Your task to perform on an android device: Open location settings Image 0: 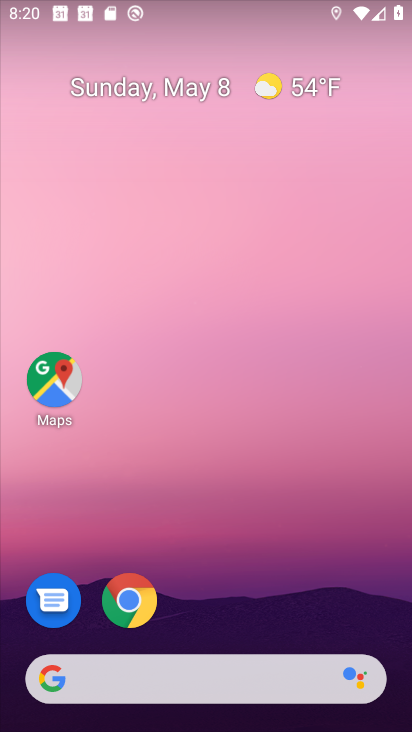
Step 0: drag from (306, 459) to (202, 70)
Your task to perform on an android device: Open location settings Image 1: 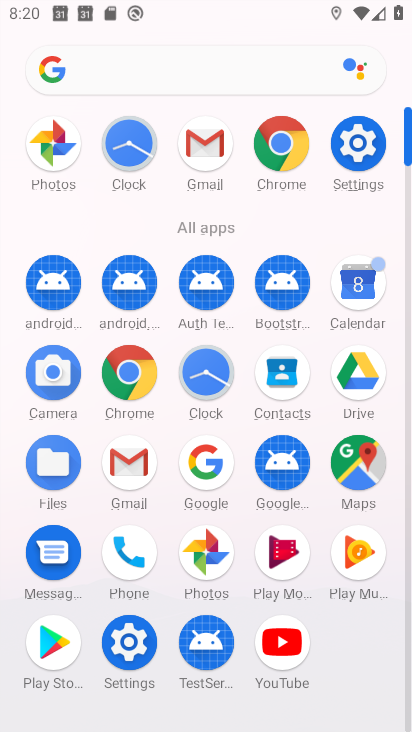
Step 1: click (374, 144)
Your task to perform on an android device: Open location settings Image 2: 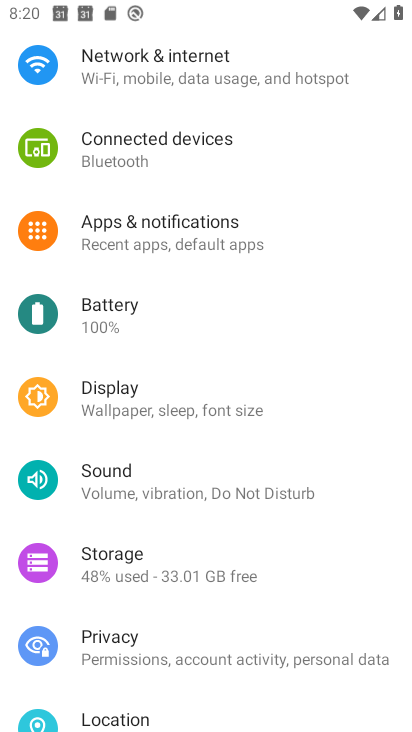
Step 2: click (153, 726)
Your task to perform on an android device: Open location settings Image 3: 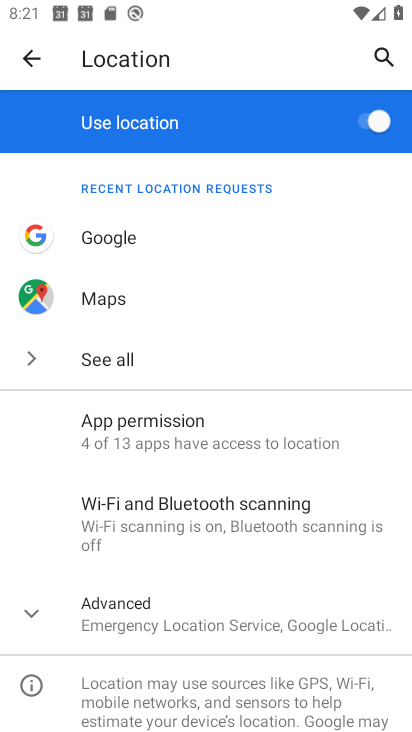
Step 3: task complete